Your task to perform on an android device: Go to sound settings Image 0: 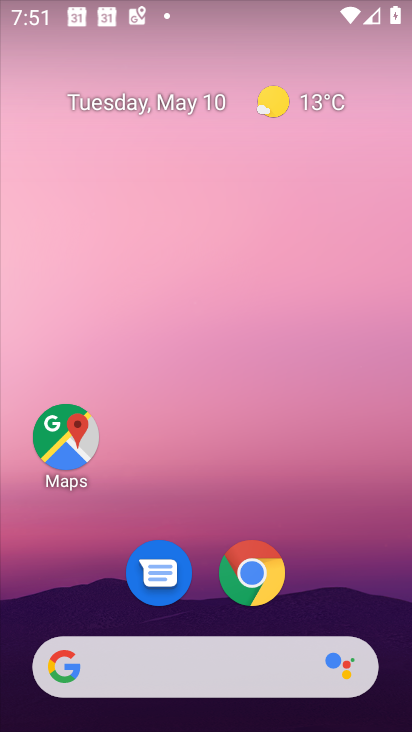
Step 0: drag from (357, 632) to (338, 12)
Your task to perform on an android device: Go to sound settings Image 1: 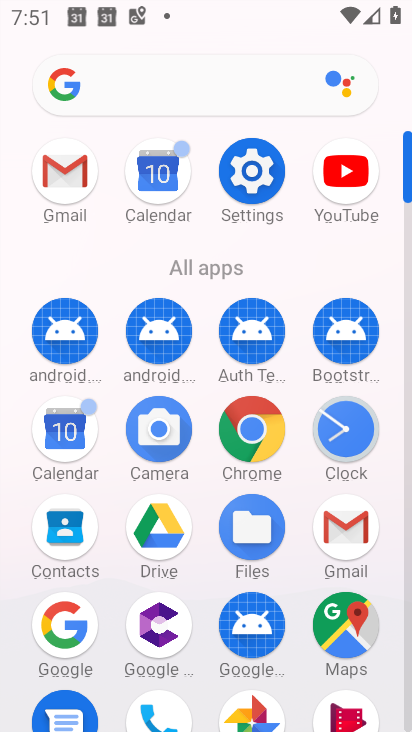
Step 1: click (247, 177)
Your task to perform on an android device: Go to sound settings Image 2: 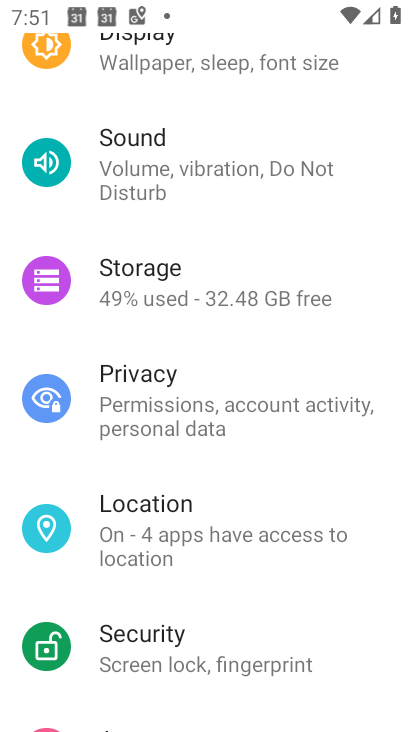
Step 2: click (132, 171)
Your task to perform on an android device: Go to sound settings Image 3: 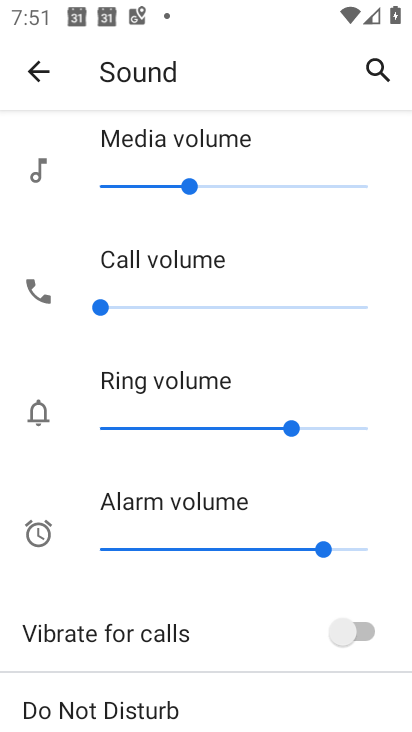
Step 3: task complete